Your task to perform on an android device: toggle pop-ups in chrome Image 0: 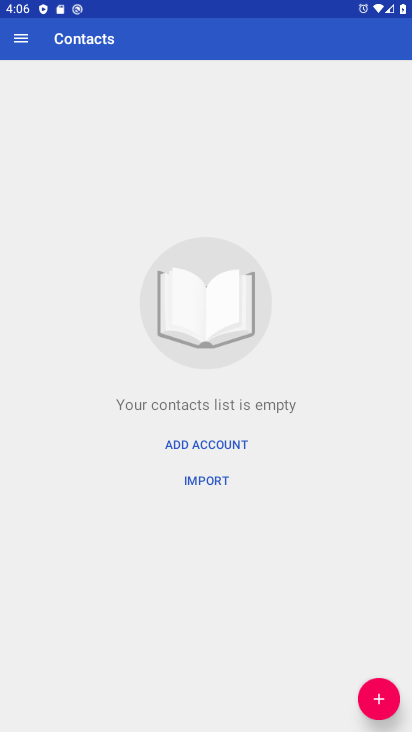
Step 0: press home button
Your task to perform on an android device: toggle pop-ups in chrome Image 1: 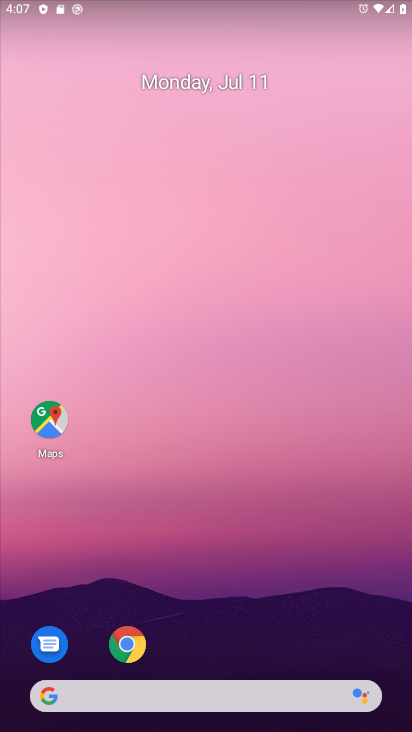
Step 1: drag from (222, 682) to (222, 2)
Your task to perform on an android device: toggle pop-ups in chrome Image 2: 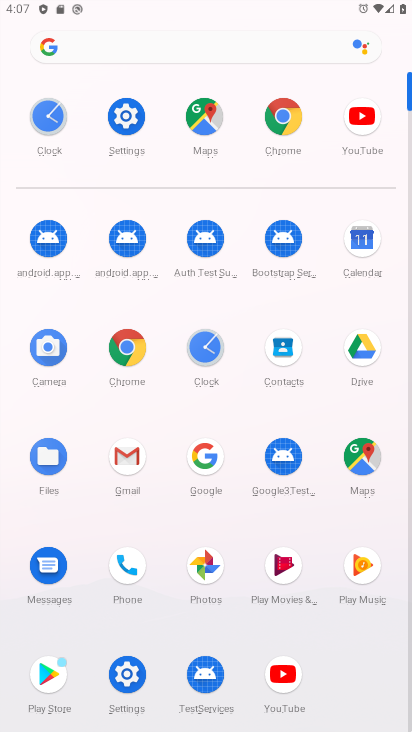
Step 2: click (132, 347)
Your task to perform on an android device: toggle pop-ups in chrome Image 3: 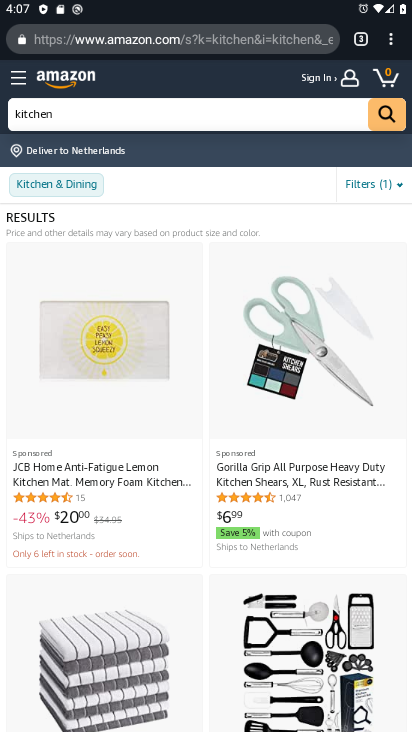
Step 3: click (391, 39)
Your task to perform on an android device: toggle pop-ups in chrome Image 4: 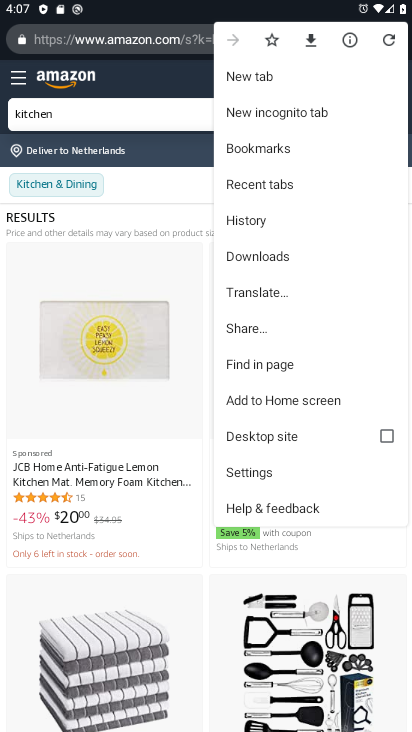
Step 4: click (265, 473)
Your task to perform on an android device: toggle pop-ups in chrome Image 5: 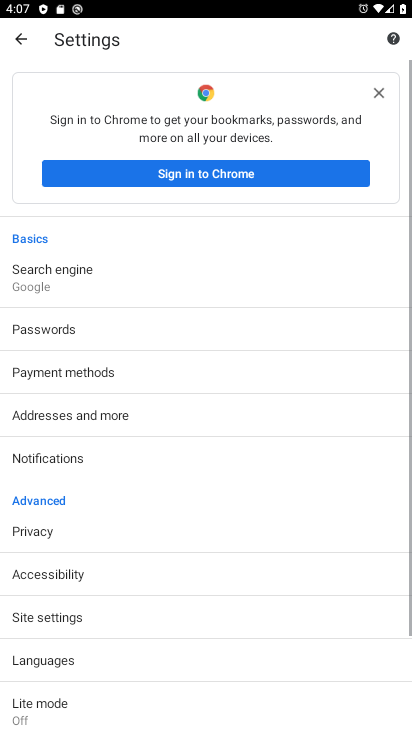
Step 5: drag from (219, 616) to (215, 293)
Your task to perform on an android device: toggle pop-ups in chrome Image 6: 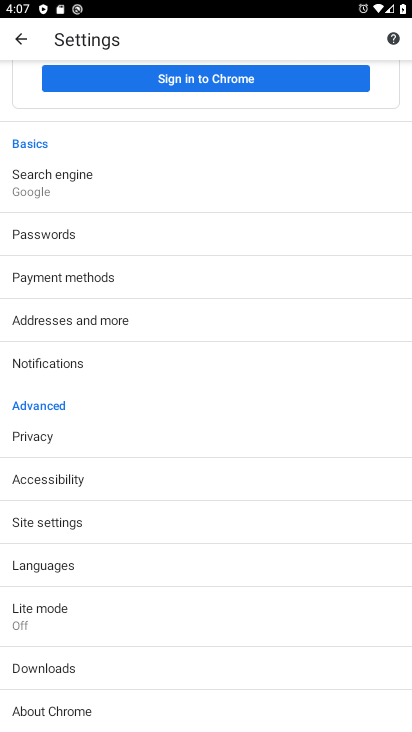
Step 6: click (94, 529)
Your task to perform on an android device: toggle pop-ups in chrome Image 7: 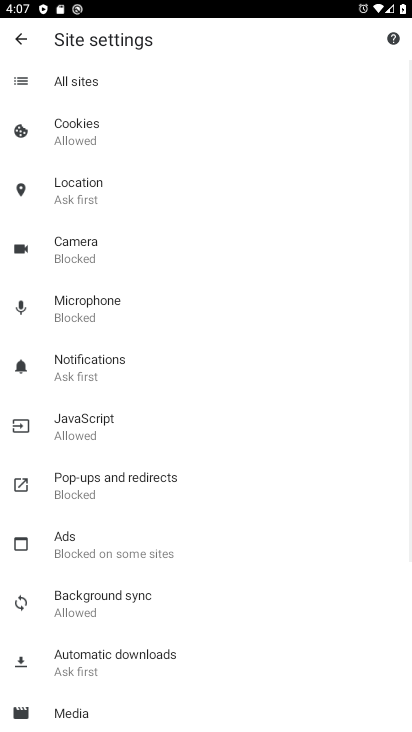
Step 7: click (127, 501)
Your task to perform on an android device: toggle pop-ups in chrome Image 8: 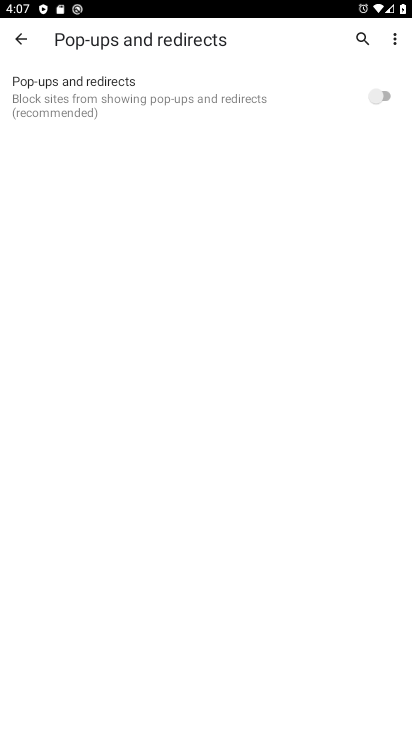
Step 8: click (380, 94)
Your task to perform on an android device: toggle pop-ups in chrome Image 9: 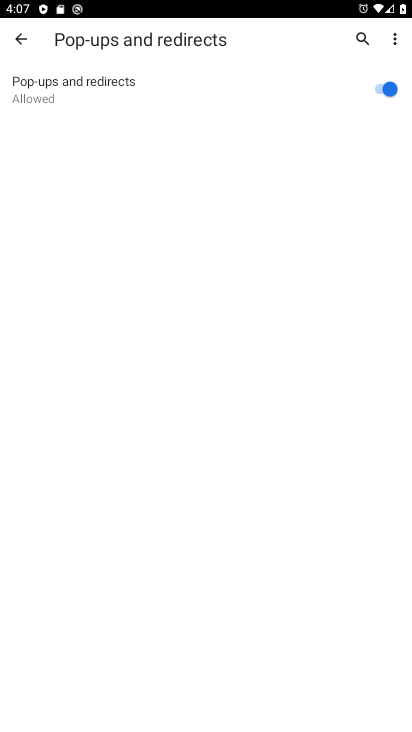
Step 9: task complete